Your task to perform on an android device: Search for "macbook pro" on amazon.com, select the first entry, add it to the cart, then select checkout. Image 0: 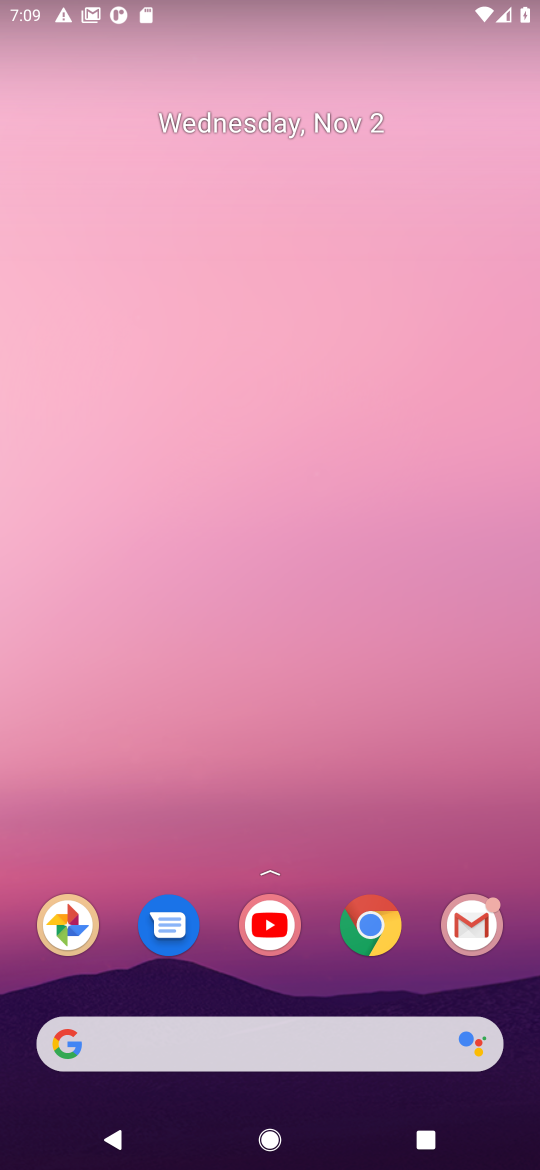
Step 0: press home button
Your task to perform on an android device: Search for "macbook pro" on amazon.com, select the first entry, add it to the cart, then select checkout. Image 1: 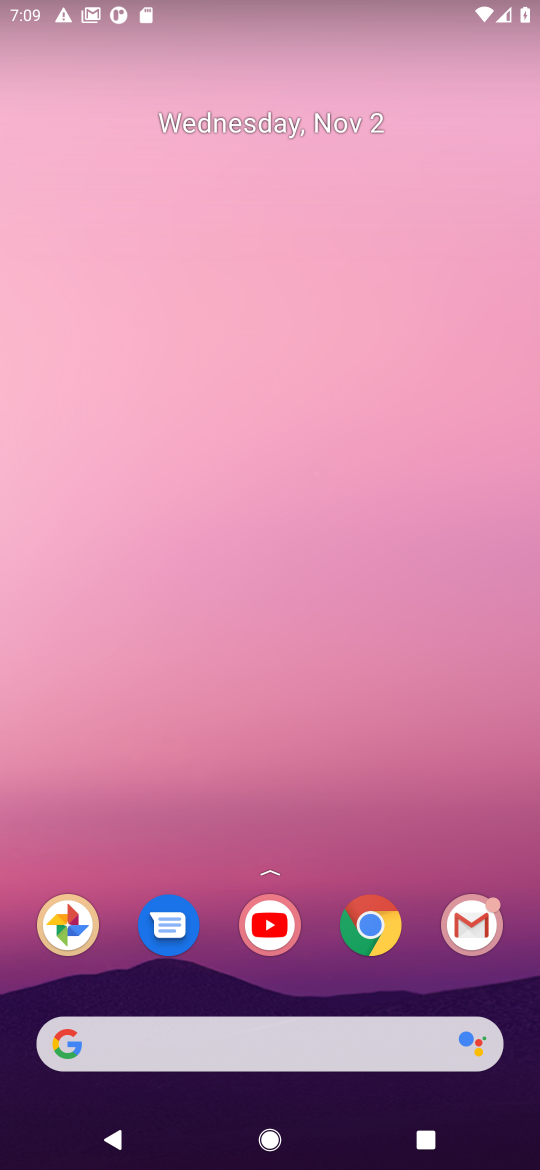
Step 1: click (91, 1045)
Your task to perform on an android device: Search for "macbook pro" on amazon.com, select the first entry, add it to the cart, then select checkout. Image 2: 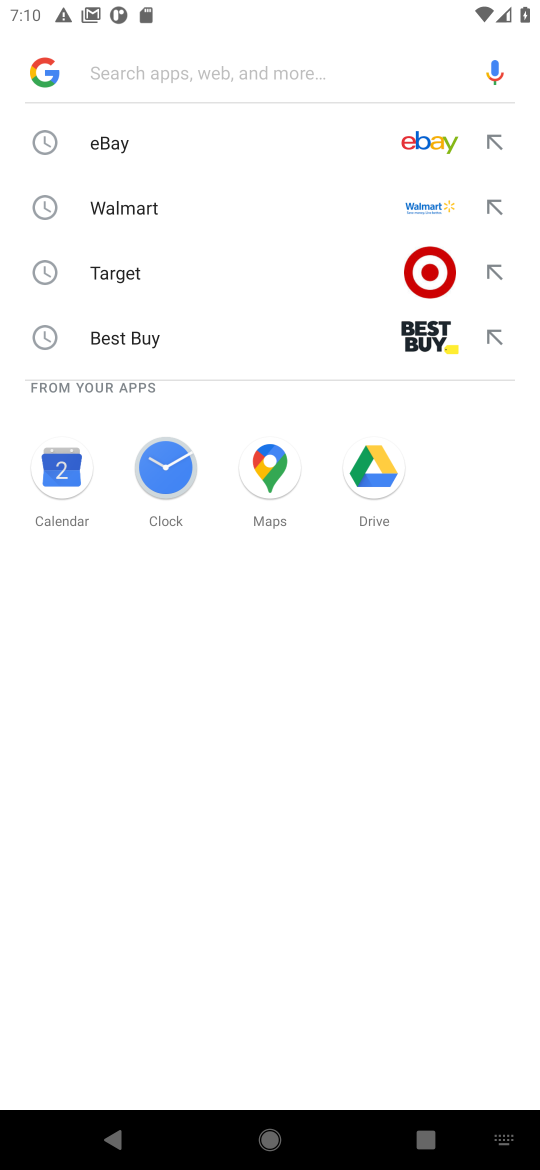
Step 2: type "amazon.com"
Your task to perform on an android device: Search for "macbook pro" on amazon.com, select the first entry, add it to the cart, then select checkout. Image 3: 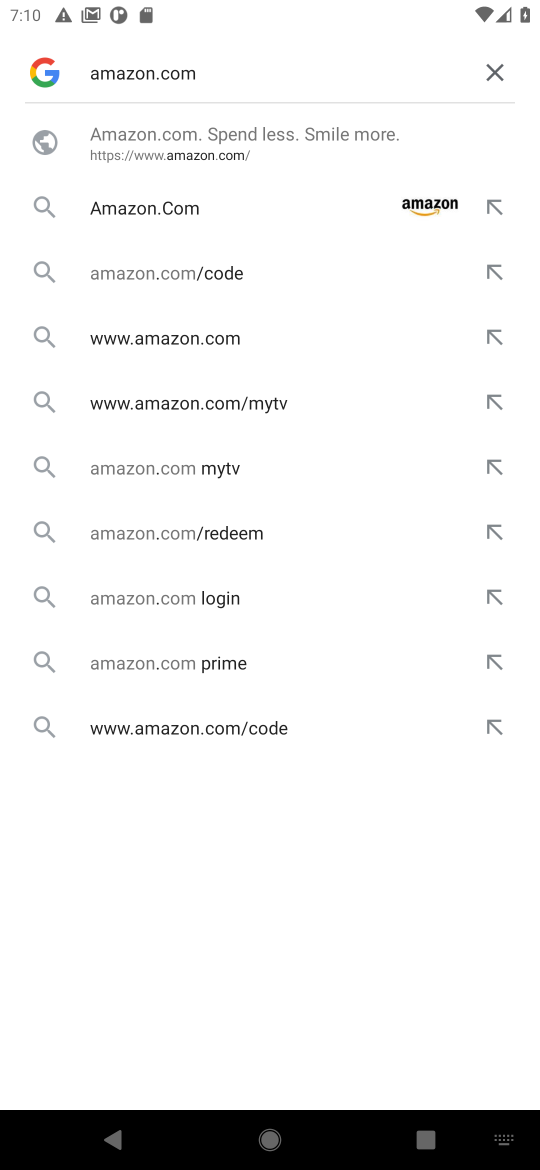
Step 3: press enter
Your task to perform on an android device: Search for "macbook pro" on amazon.com, select the first entry, add it to the cart, then select checkout. Image 4: 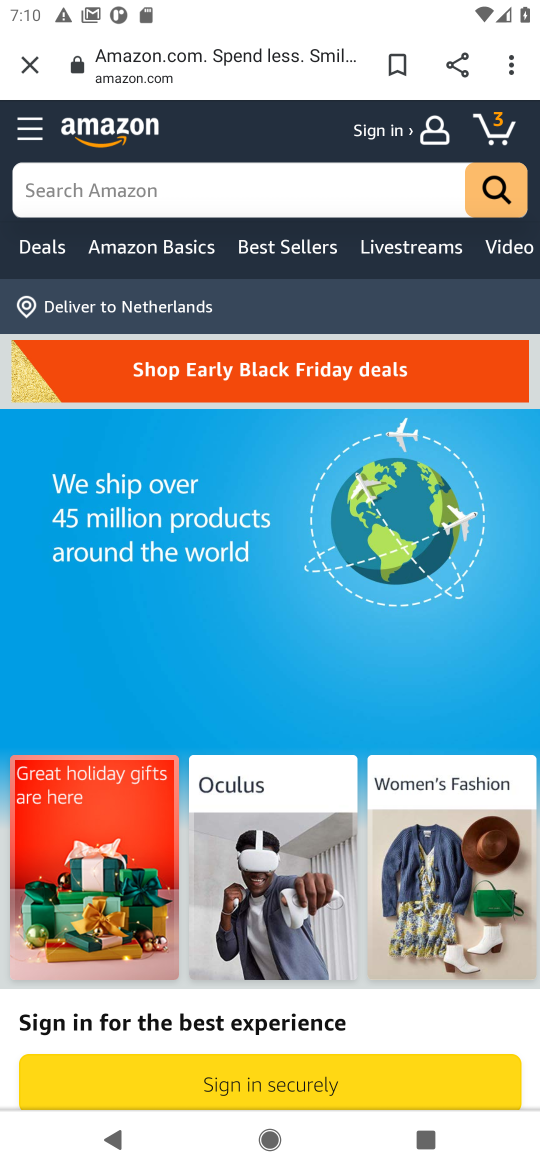
Step 4: click (46, 182)
Your task to perform on an android device: Search for "macbook pro" on amazon.com, select the first entry, add it to the cart, then select checkout. Image 5: 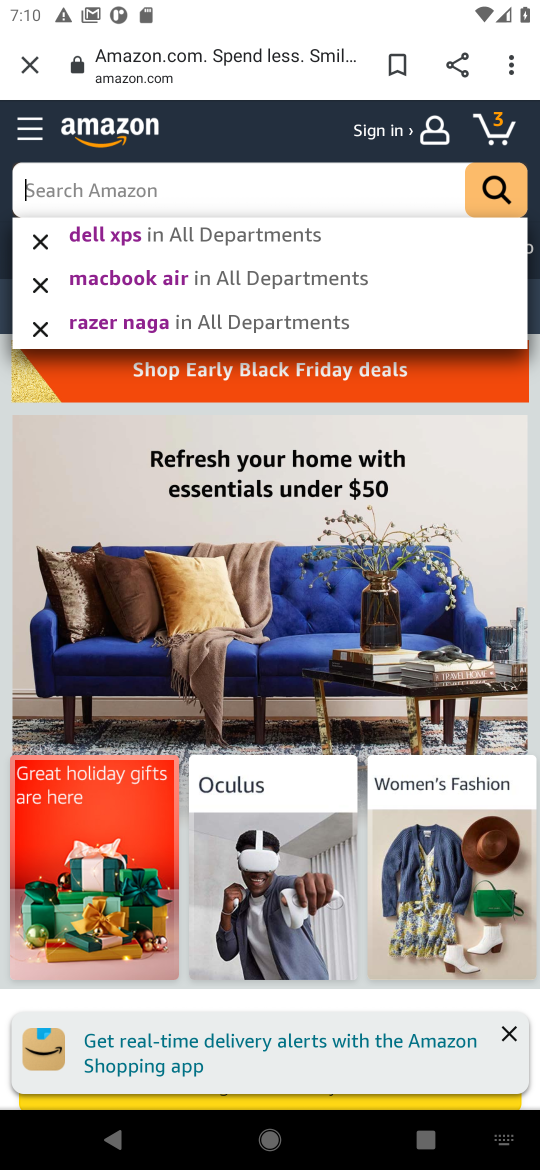
Step 5: type "macbook pro"
Your task to perform on an android device: Search for "macbook pro" on amazon.com, select the first entry, add it to the cart, then select checkout. Image 6: 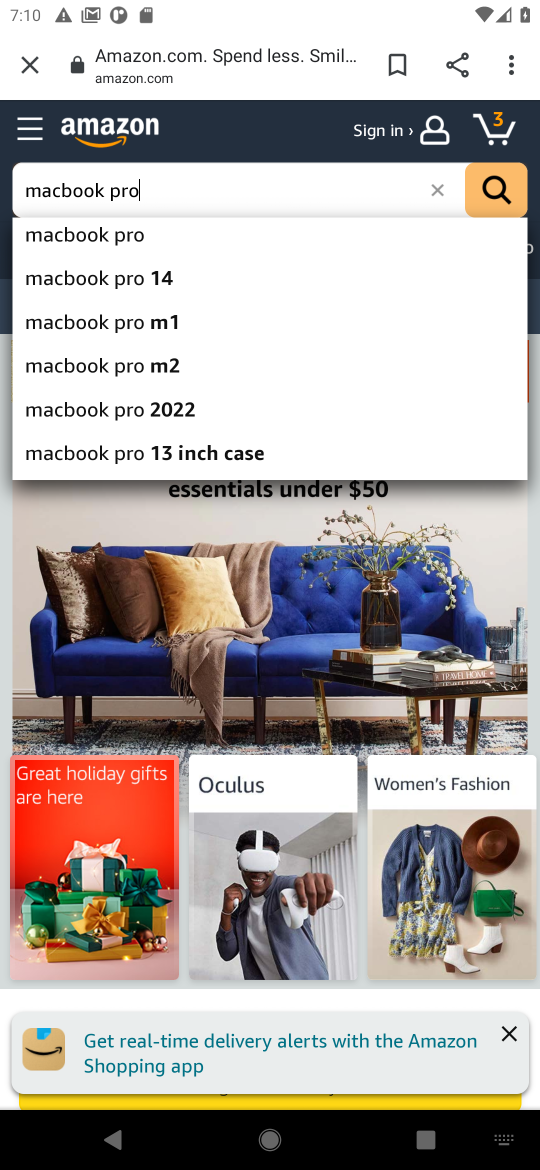
Step 6: click (495, 189)
Your task to perform on an android device: Search for "macbook pro" on amazon.com, select the first entry, add it to the cart, then select checkout. Image 7: 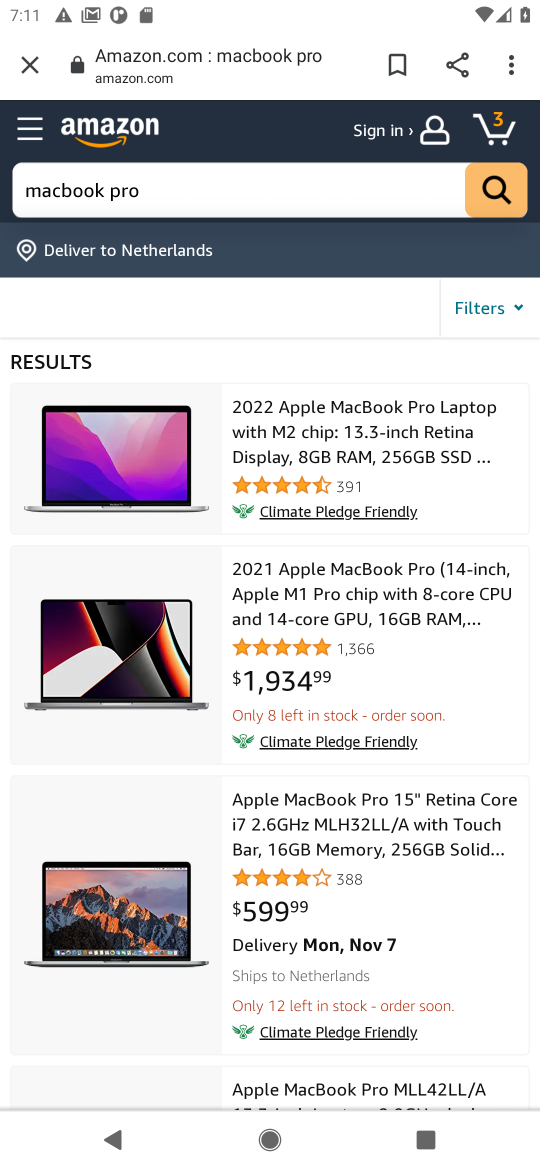
Step 7: click (331, 439)
Your task to perform on an android device: Search for "macbook pro" on amazon.com, select the first entry, add it to the cart, then select checkout. Image 8: 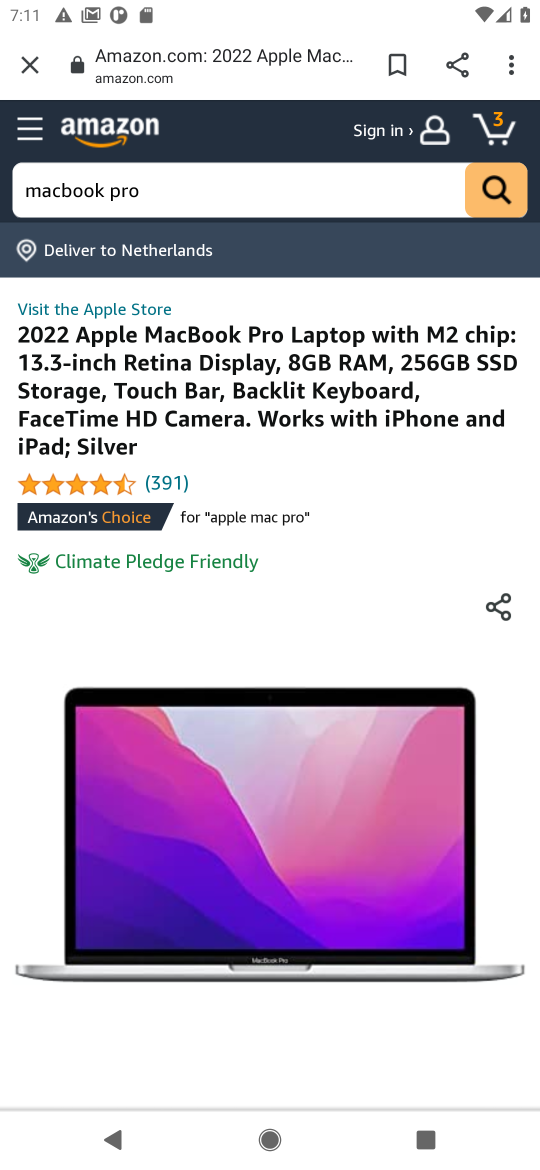
Step 8: drag from (353, 978) to (381, 554)
Your task to perform on an android device: Search for "macbook pro" on amazon.com, select the first entry, add it to the cart, then select checkout. Image 9: 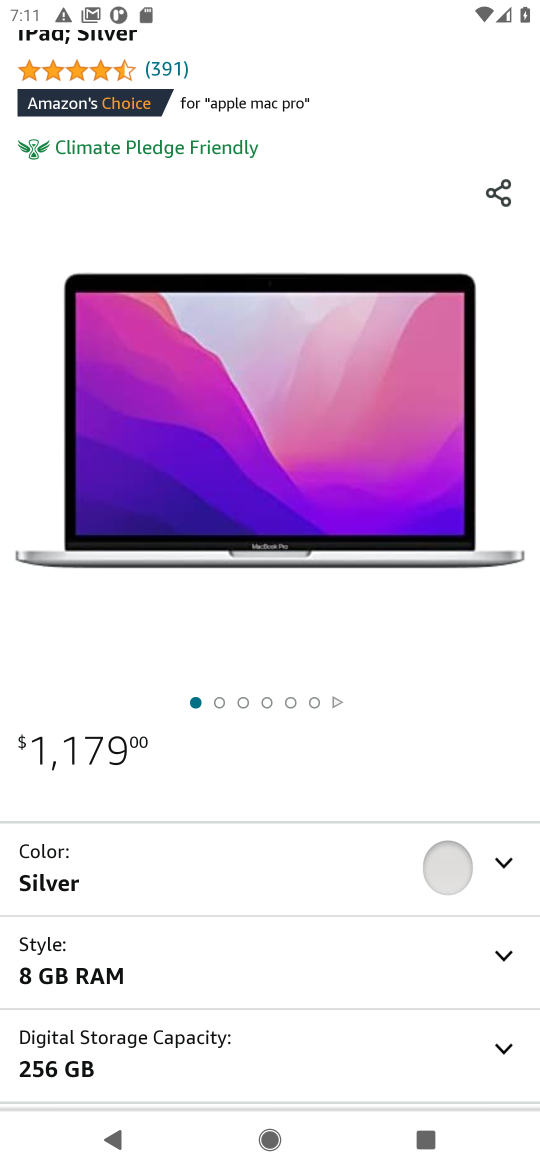
Step 9: drag from (334, 842) to (344, 361)
Your task to perform on an android device: Search for "macbook pro" on amazon.com, select the first entry, add it to the cart, then select checkout. Image 10: 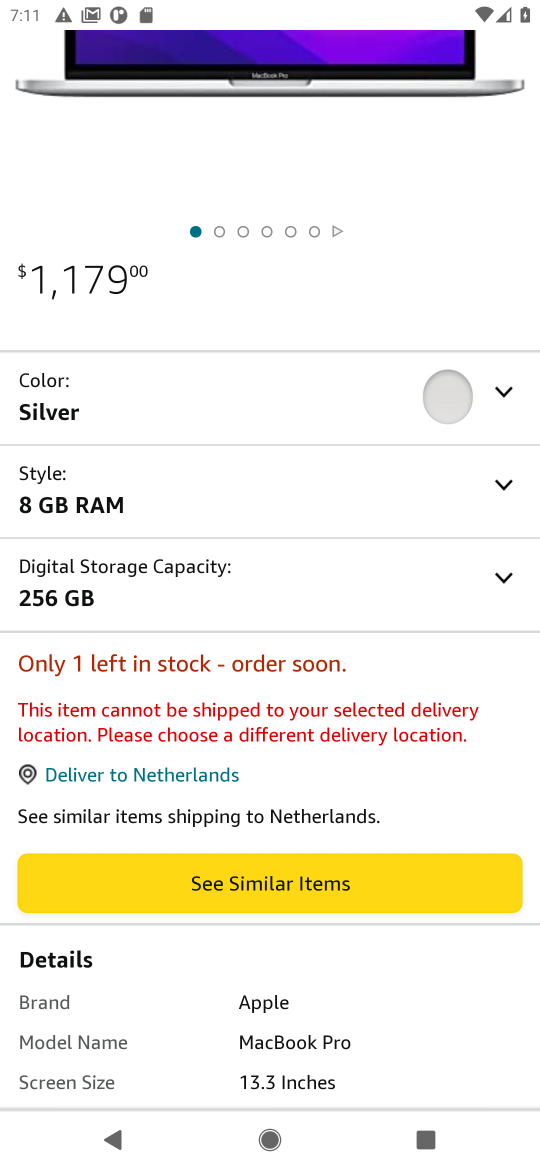
Step 10: press back button
Your task to perform on an android device: Search for "macbook pro" on amazon.com, select the first entry, add it to the cart, then select checkout. Image 11: 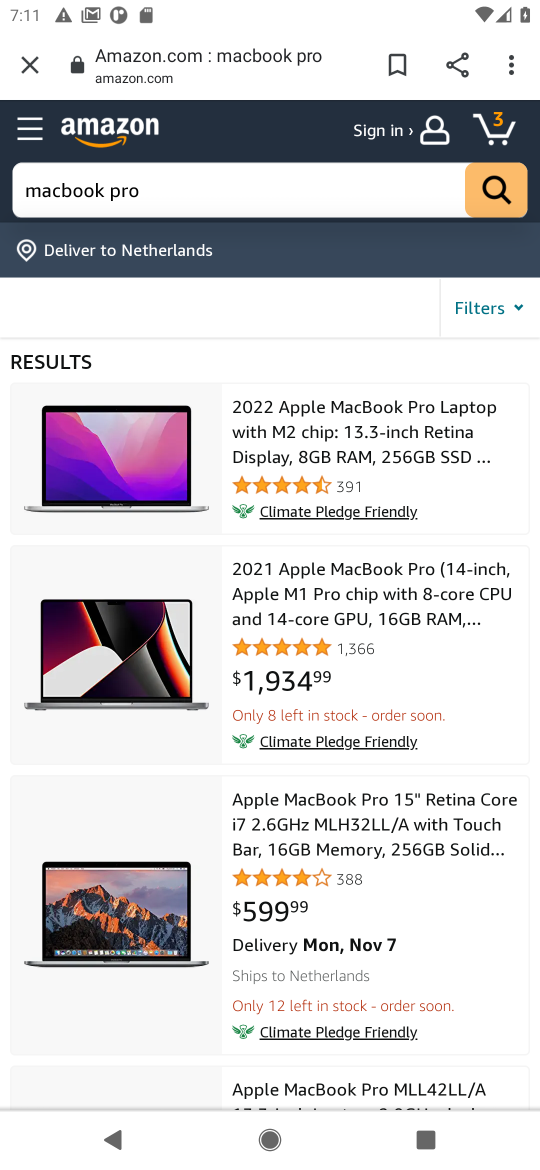
Step 11: click (342, 605)
Your task to perform on an android device: Search for "macbook pro" on amazon.com, select the first entry, add it to the cart, then select checkout. Image 12: 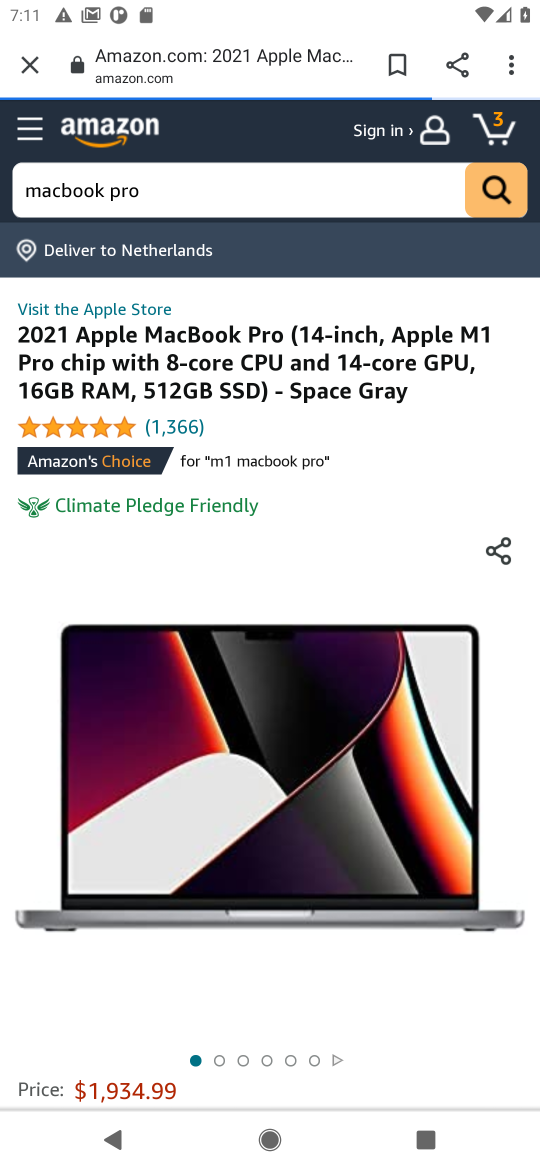
Step 12: drag from (341, 881) to (368, 362)
Your task to perform on an android device: Search for "macbook pro" on amazon.com, select the first entry, add it to the cart, then select checkout. Image 13: 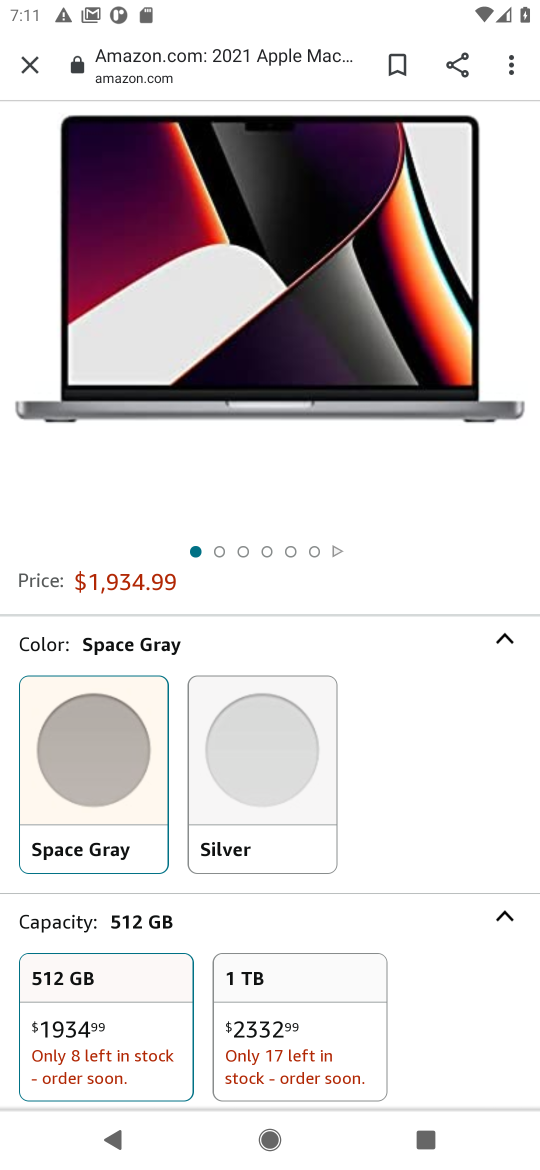
Step 13: drag from (311, 975) to (343, 400)
Your task to perform on an android device: Search for "macbook pro" on amazon.com, select the first entry, add it to the cart, then select checkout. Image 14: 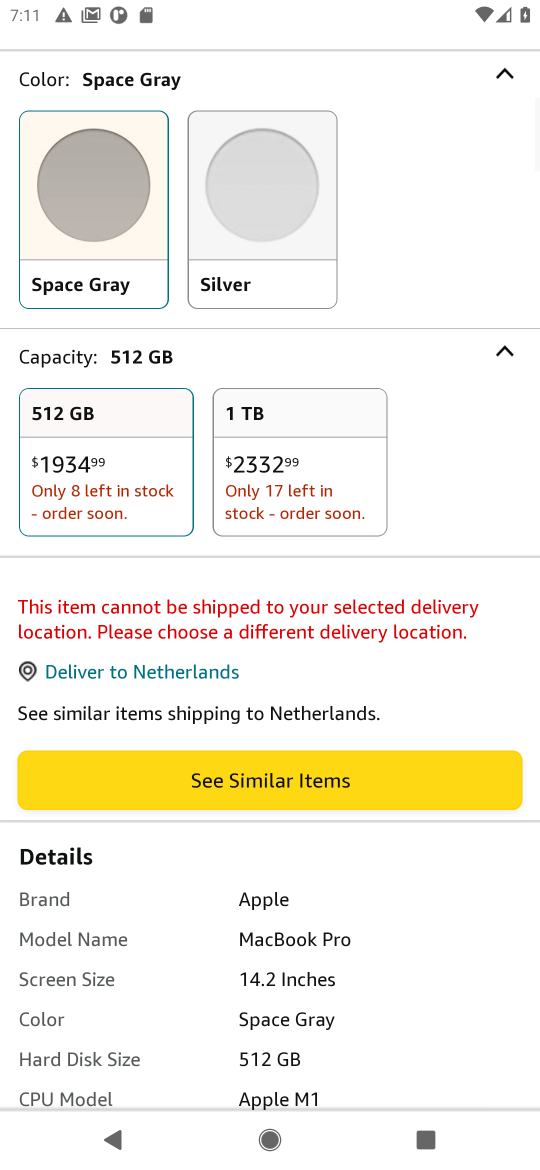
Step 14: press back button
Your task to perform on an android device: Search for "macbook pro" on amazon.com, select the first entry, add it to the cart, then select checkout. Image 15: 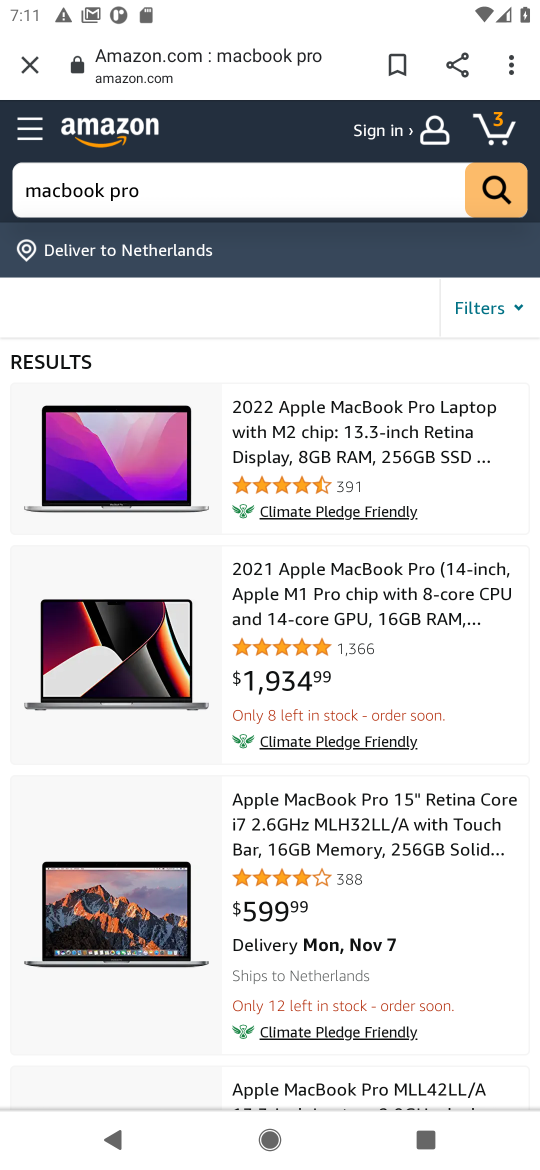
Step 15: click (329, 860)
Your task to perform on an android device: Search for "macbook pro" on amazon.com, select the first entry, add it to the cart, then select checkout. Image 16: 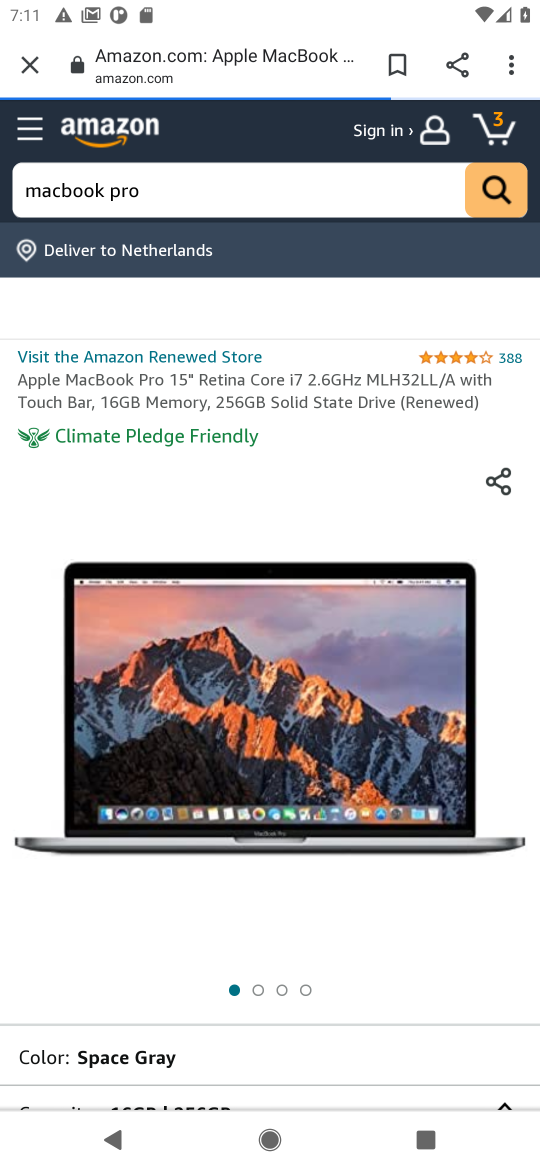
Step 16: drag from (340, 837) to (367, 381)
Your task to perform on an android device: Search for "macbook pro" on amazon.com, select the first entry, add it to the cart, then select checkout. Image 17: 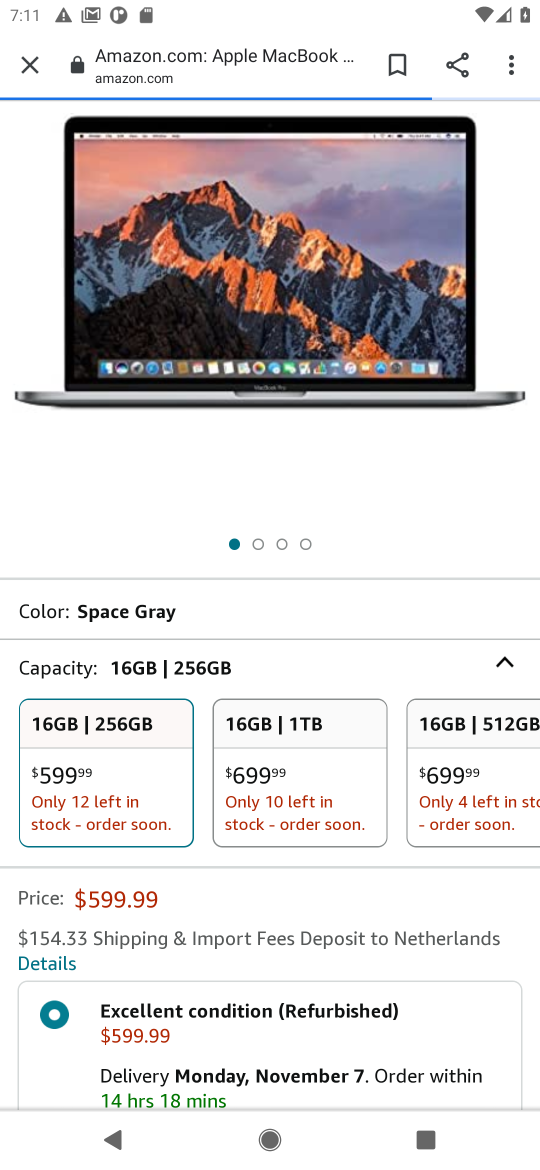
Step 17: drag from (319, 1034) to (386, 326)
Your task to perform on an android device: Search for "macbook pro" on amazon.com, select the first entry, add it to the cart, then select checkout. Image 18: 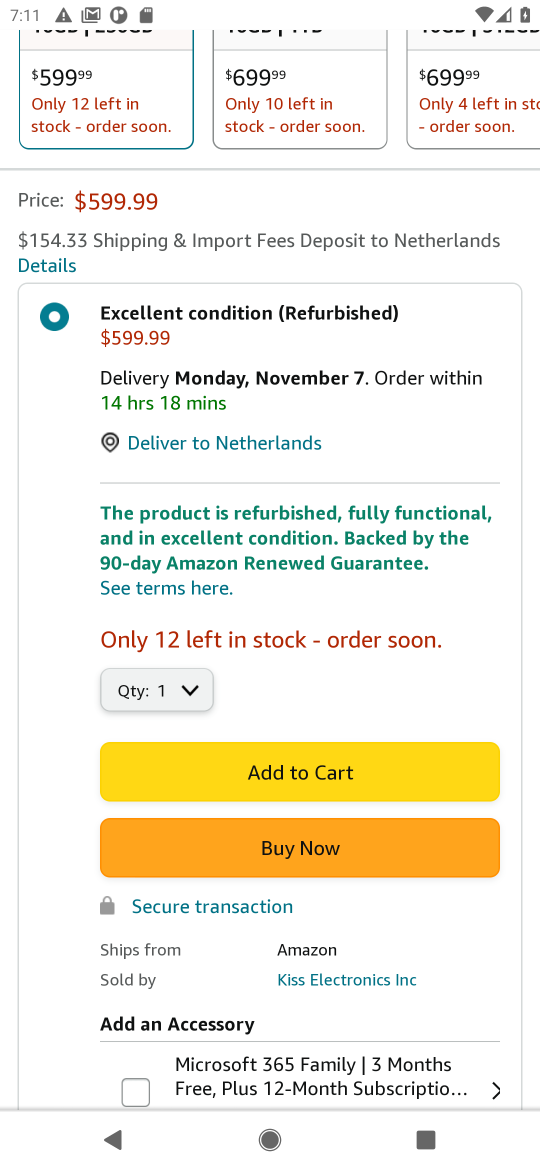
Step 18: click (287, 776)
Your task to perform on an android device: Search for "macbook pro" on amazon.com, select the first entry, add it to the cart, then select checkout. Image 19: 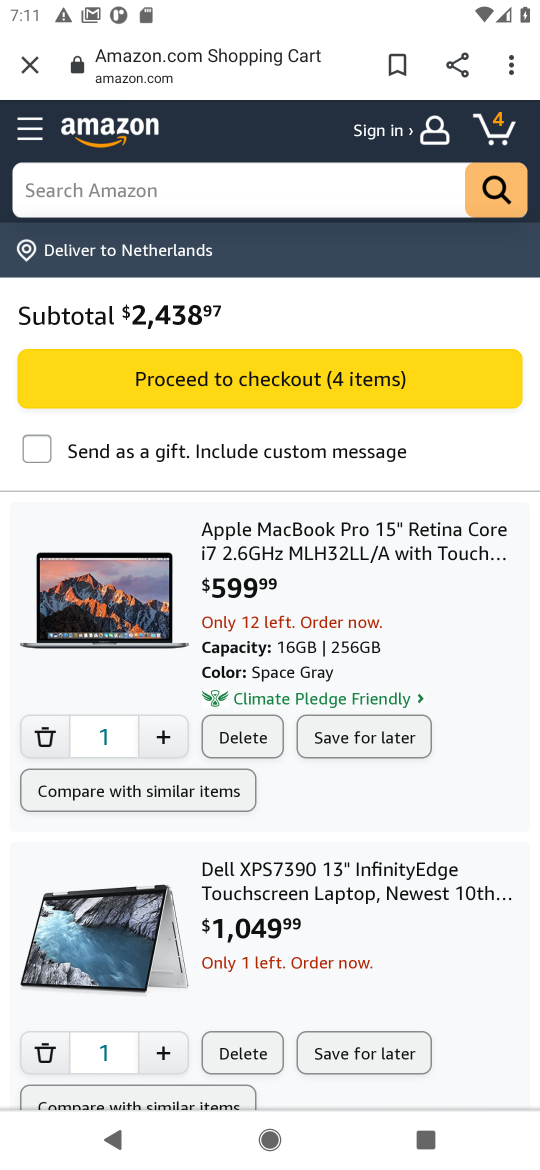
Step 19: click (300, 379)
Your task to perform on an android device: Search for "macbook pro" on amazon.com, select the first entry, add it to the cart, then select checkout. Image 20: 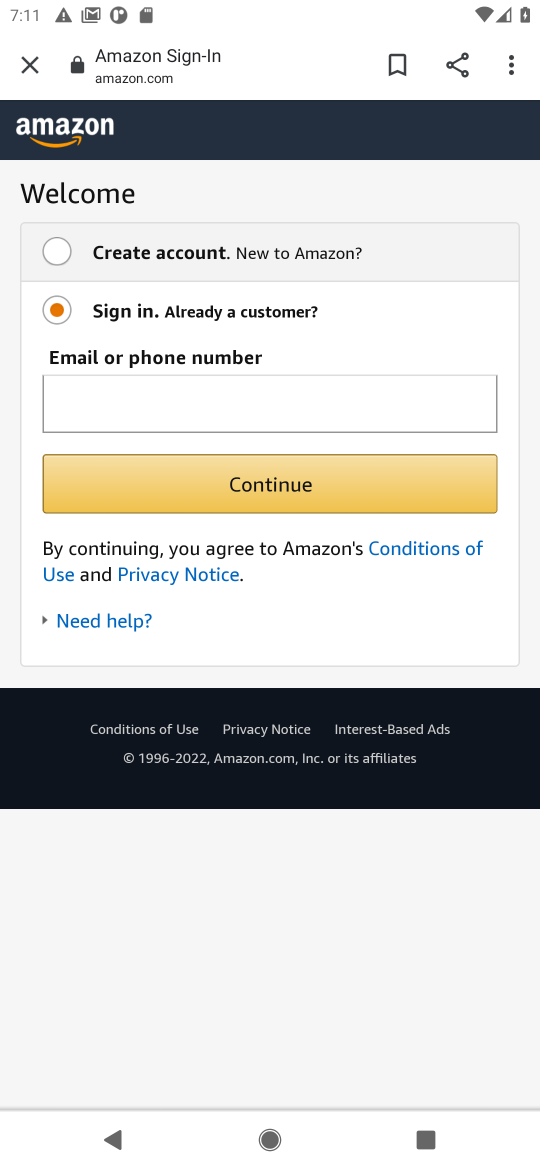
Step 20: task complete